Your task to perform on an android device: Do I have any events this weekend? Image 0: 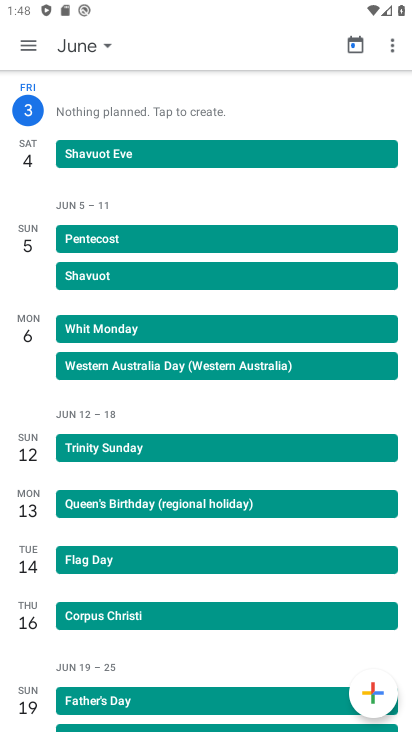
Step 0: click (108, 40)
Your task to perform on an android device: Do I have any events this weekend? Image 1: 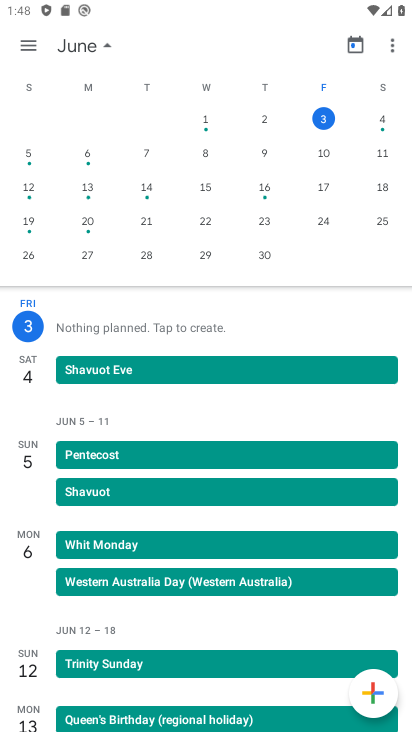
Step 1: click (39, 162)
Your task to perform on an android device: Do I have any events this weekend? Image 2: 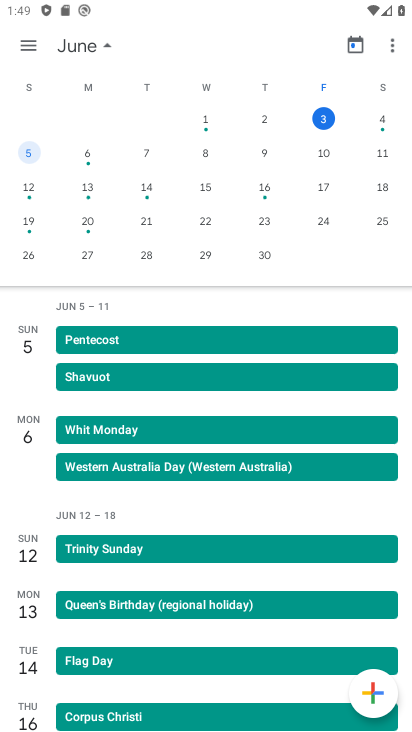
Step 2: click (102, 48)
Your task to perform on an android device: Do I have any events this weekend? Image 3: 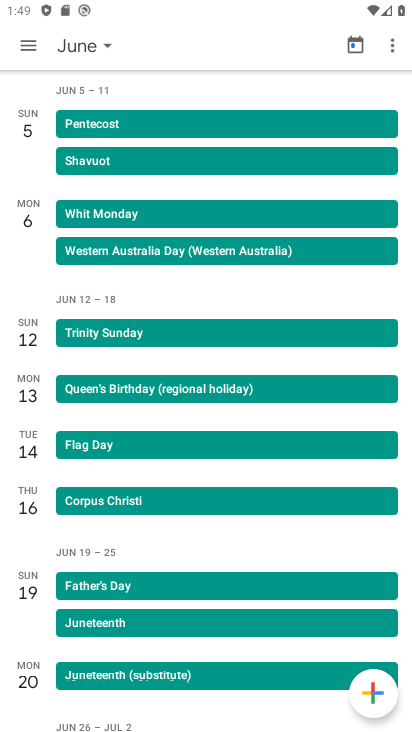
Step 3: task complete